Your task to perform on an android device: open the mobile data screen to see how much data has been used Image 0: 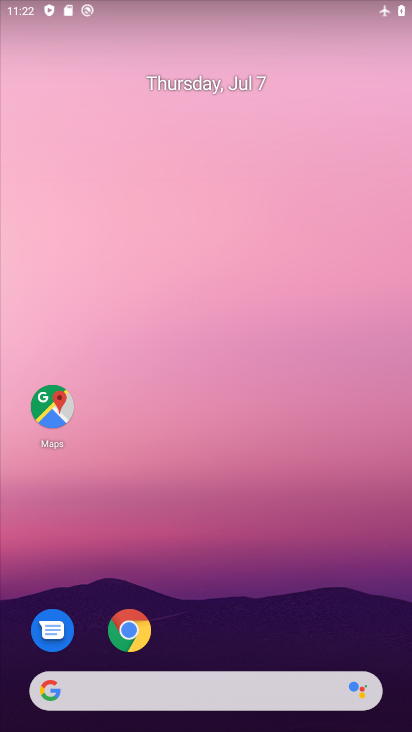
Step 0: drag from (377, 665) to (179, 49)
Your task to perform on an android device: open the mobile data screen to see how much data has been used Image 1: 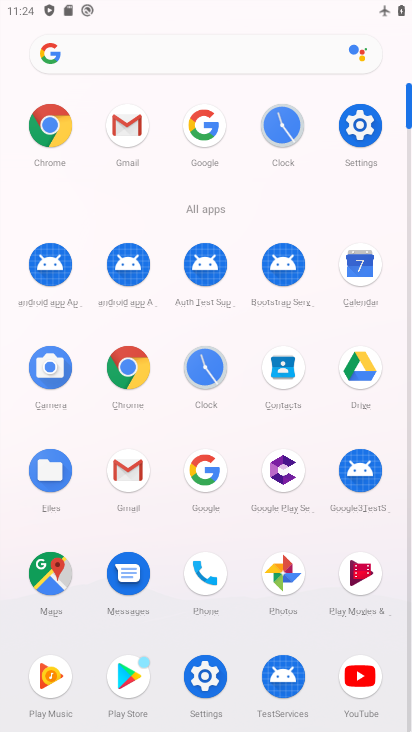
Step 1: click (358, 147)
Your task to perform on an android device: open the mobile data screen to see how much data has been used Image 2: 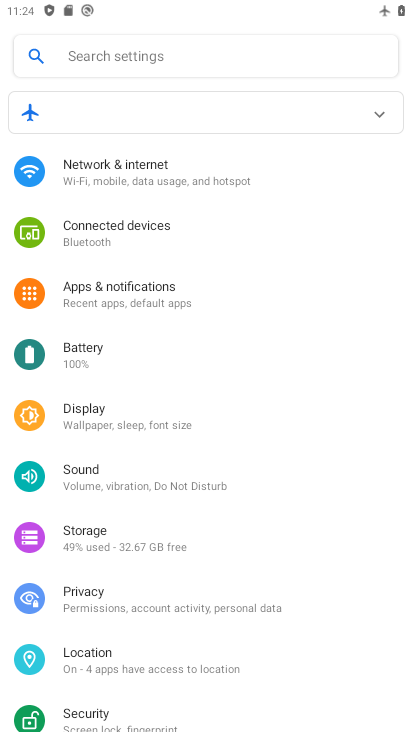
Step 2: task complete